Your task to perform on an android device: Go to battery settings Image 0: 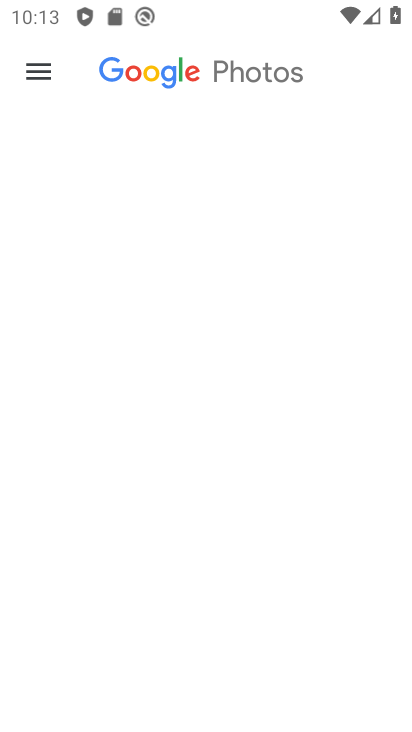
Step 0: press home button
Your task to perform on an android device: Go to battery settings Image 1: 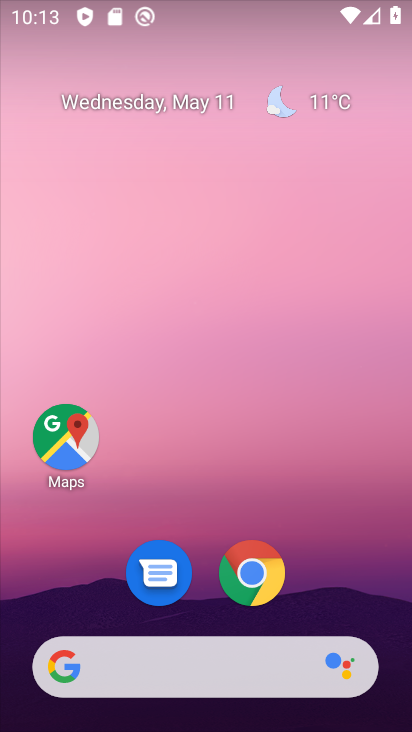
Step 1: drag from (206, 621) to (247, 40)
Your task to perform on an android device: Go to battery settings Image 2: 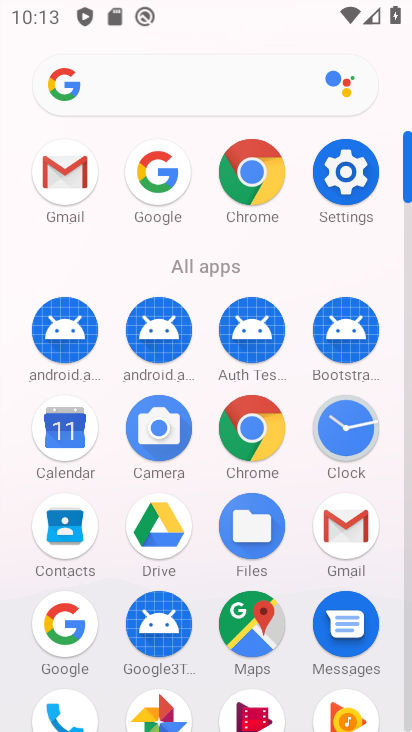
Step 2: click (352, 169)
Your task to perform on an android device: Go to battery settings Image 3: 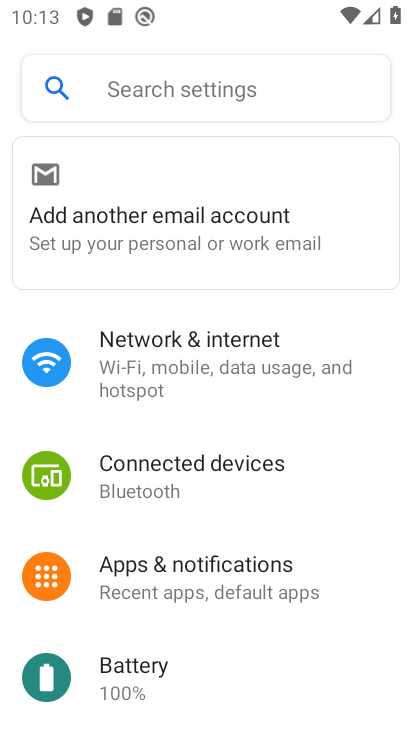
Step 3: click (174, 662)
Your task to perform on an android device: Go to battery settings Image 4: 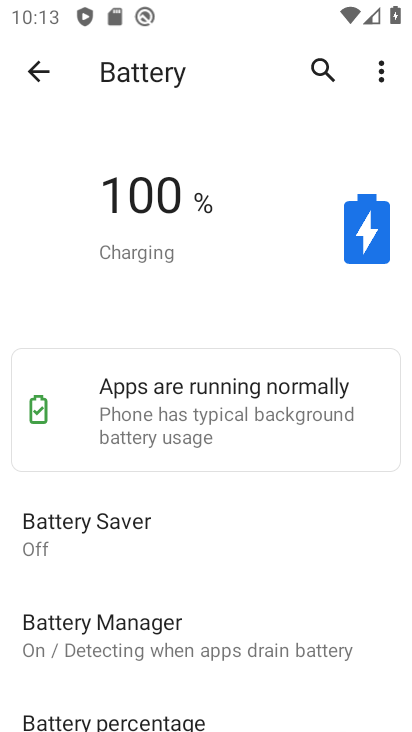
Step 4: task complete